Your task to perform on an android device: Open the Play Movies app and select the watchlist tab. Image 0: 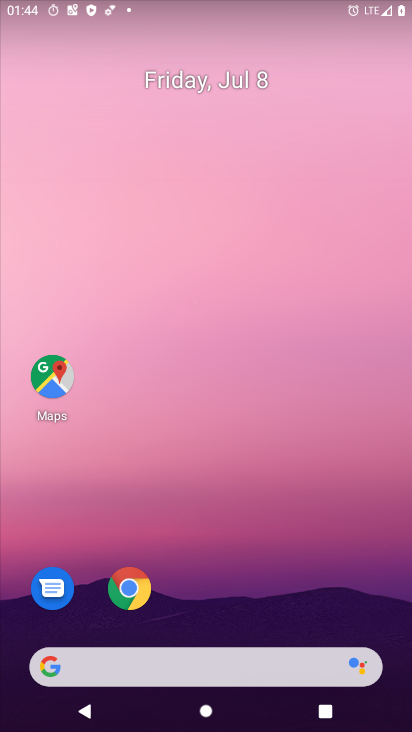
Step 0: drag from (190, 649) to (208, 213)
Your task to perform on an android device: Open the Play Movies app and select the watchlist tab. Image 1: 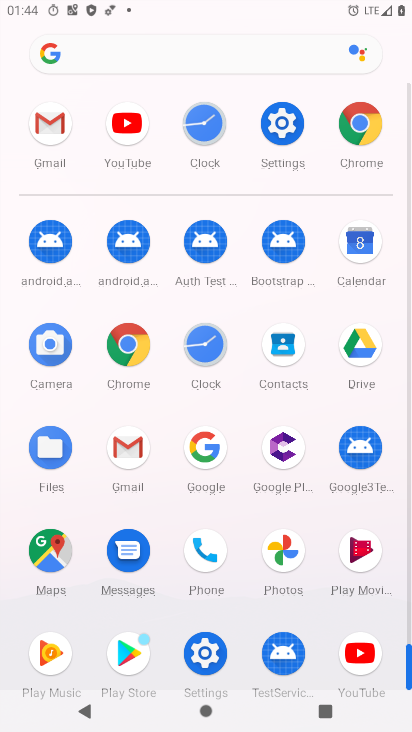
Step 1: drag from (236, 305) to (193, 625)
Your task to perform on an android device: Open the Play Movies app and select the watchlist tab. Image 2: 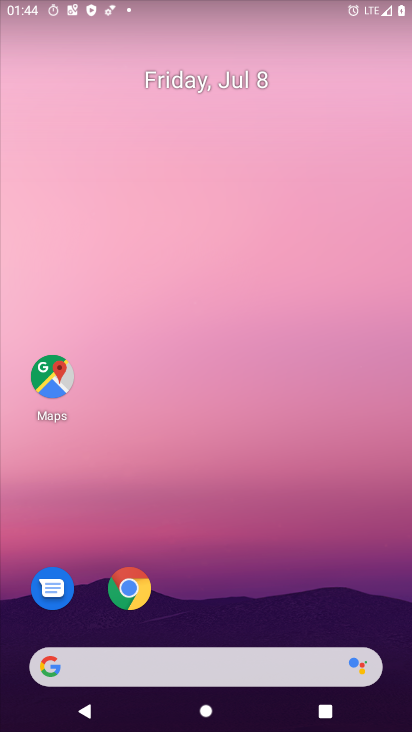
Step 2: drag from (208, 566) to (253, 34)
Your task to perform on an android device: Open the Play Movies app and select the watchlist tab. Image 3: 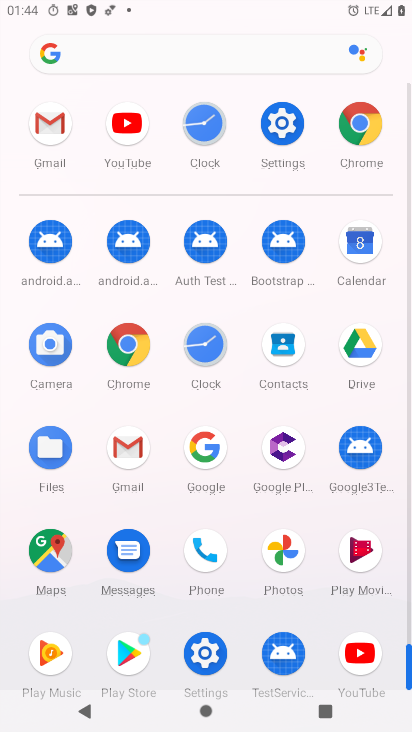
Step 3: click (361, 575)
Your task to perform on an android device: Open the Play Movies app and select the watchlist tab. Image 4: 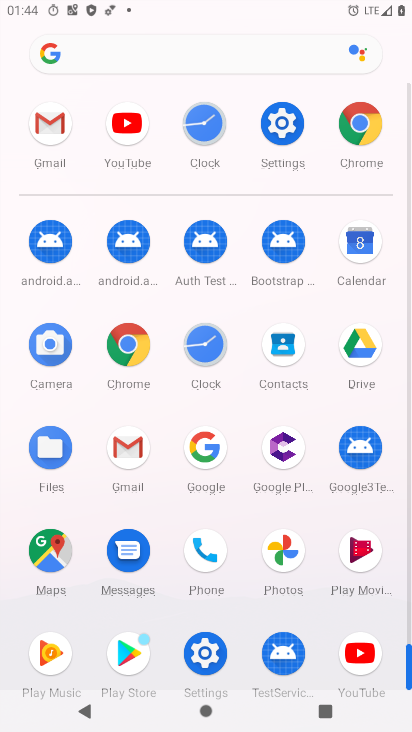
Step 4: click (361, 575)
Your task to perform on an android device: Open the Play Movies app and select the watchlist tab. Image 5: 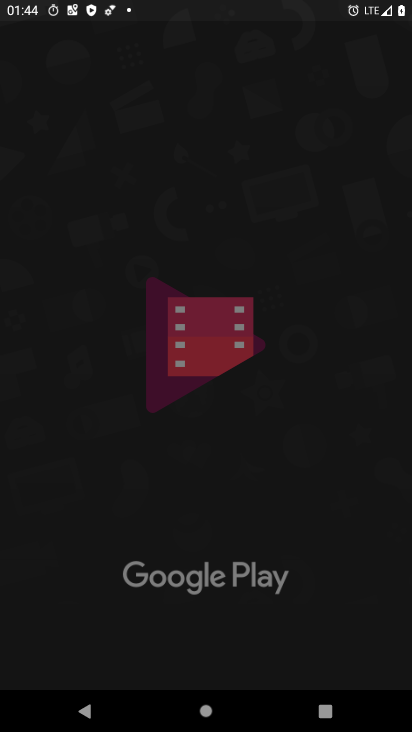
Step 5: drag from (290, 565) to (304, 333)
Your task to perform on an android device: Open the Play Movies app and select the watchlist tab. Image 6: 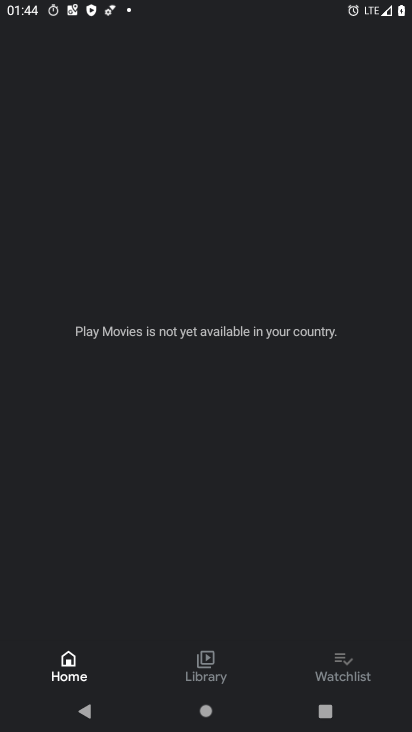
Step 6: click (332, 656)
Your task to perform on an android device: Open the Play Movies app and select the watchlist tab. Image 7: 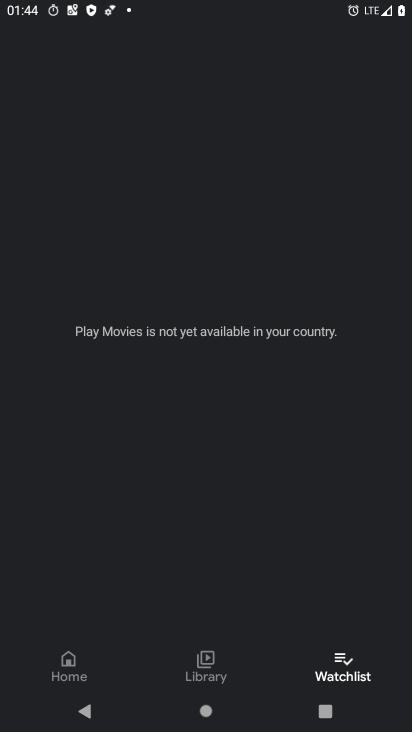
Step 7: task complete